Your task to perform on an android device: What's the news in the Dominican Republic? Image 0: 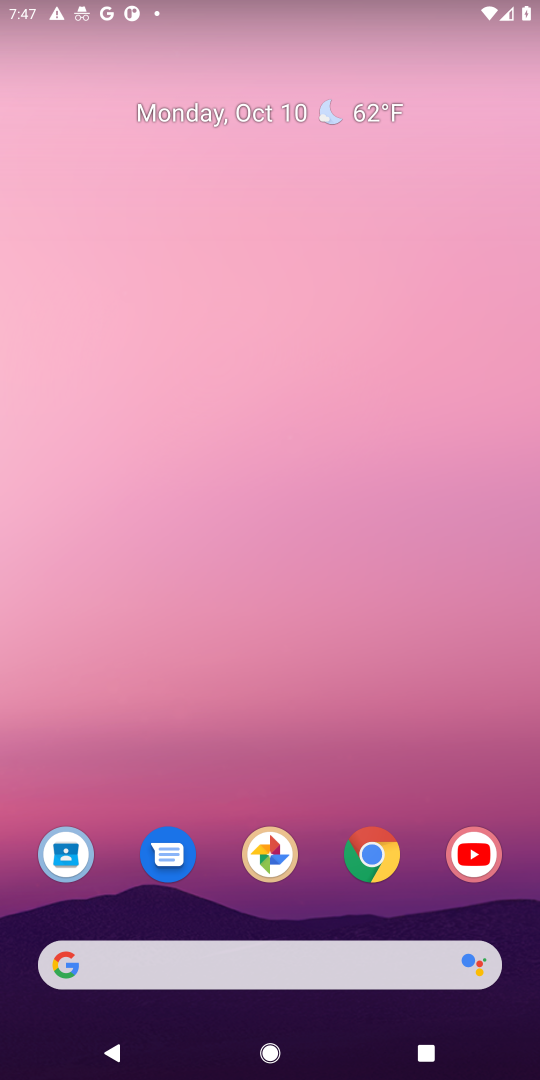
Step 0: click (370, 857)
Your task to perform on an android device: What's the news in the Dominican Republic? Image 1: 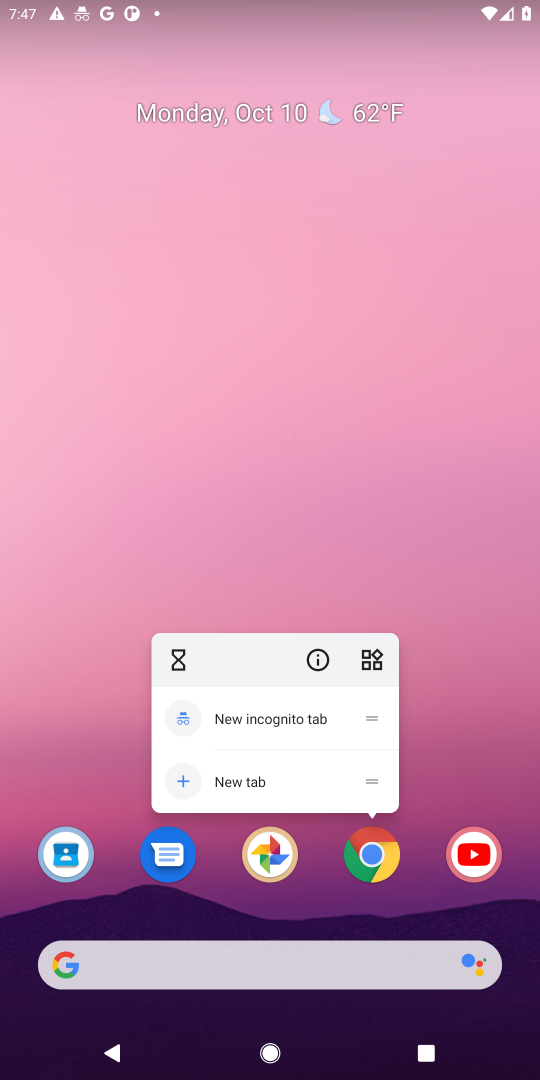
Step 1: click (370, 857)
Your task to perform on an android device: What's the news in the Dominican Republic? Image 2: 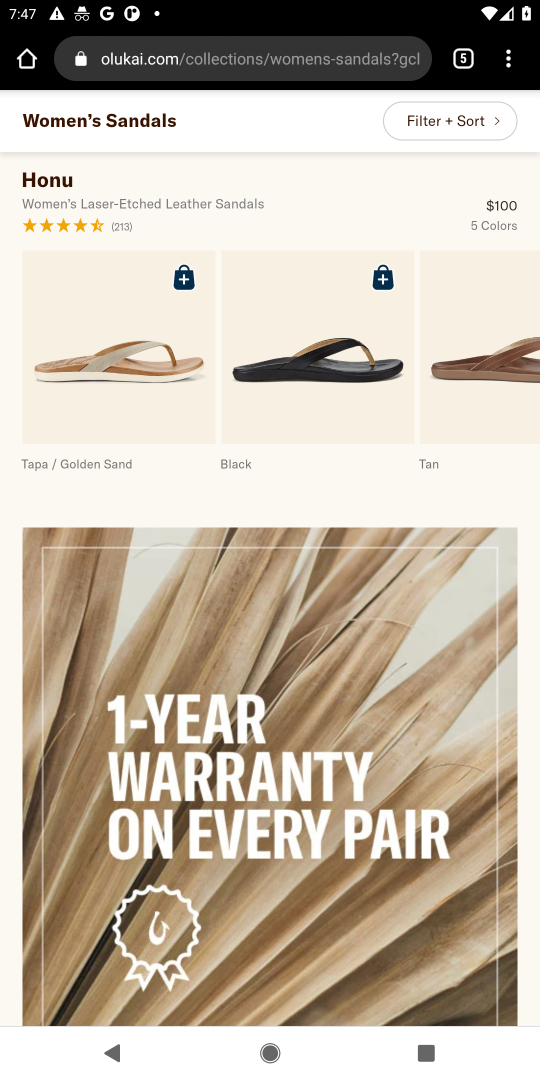
Step 2: click (283, 50)
Your task to perform on an android device: What's the news in the Dominican Republic? Image 3: 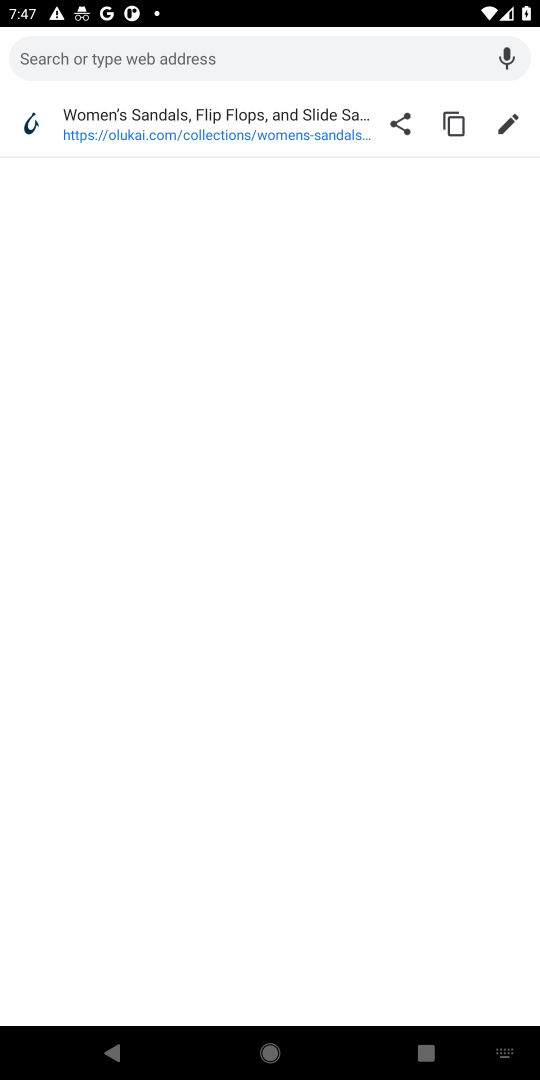
Step 3: type "news in the Dominican Republic"
Your task to perform on an android device: What's the news in the Dominican Republic? Image 4: 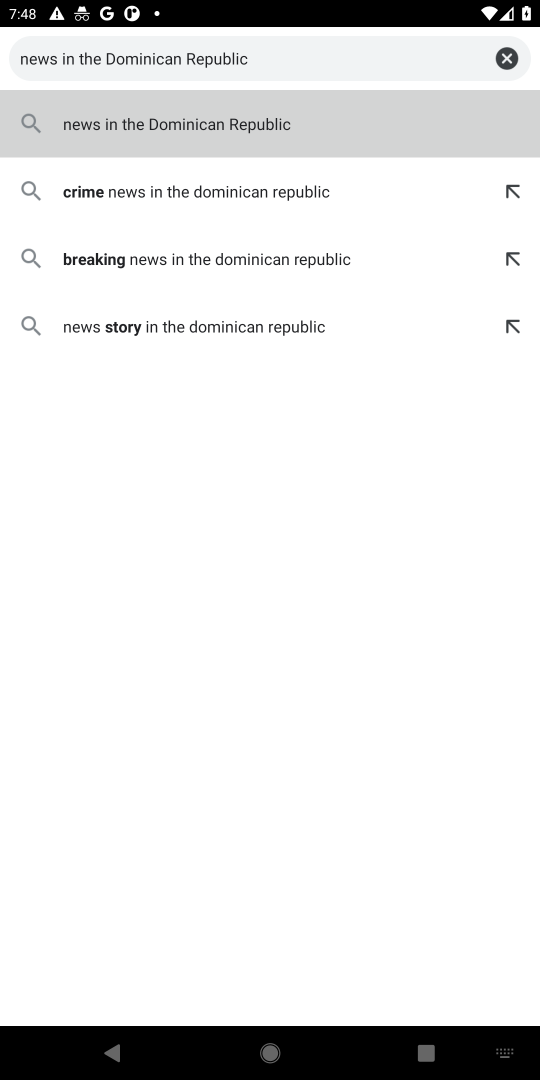
Step 4: click (136, 129)
Your task to perform on an android device: What's the news in the Dominican Republic? Image 5: 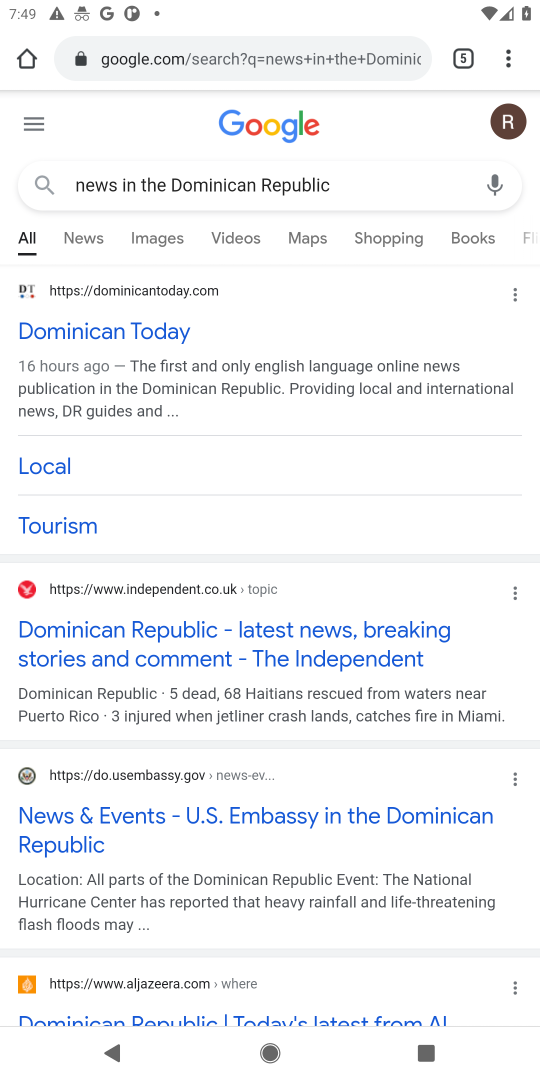
Step 5: click (82, 237)
Your task to perform on an android device: What's the news in the Dominican Republic? Image 6: 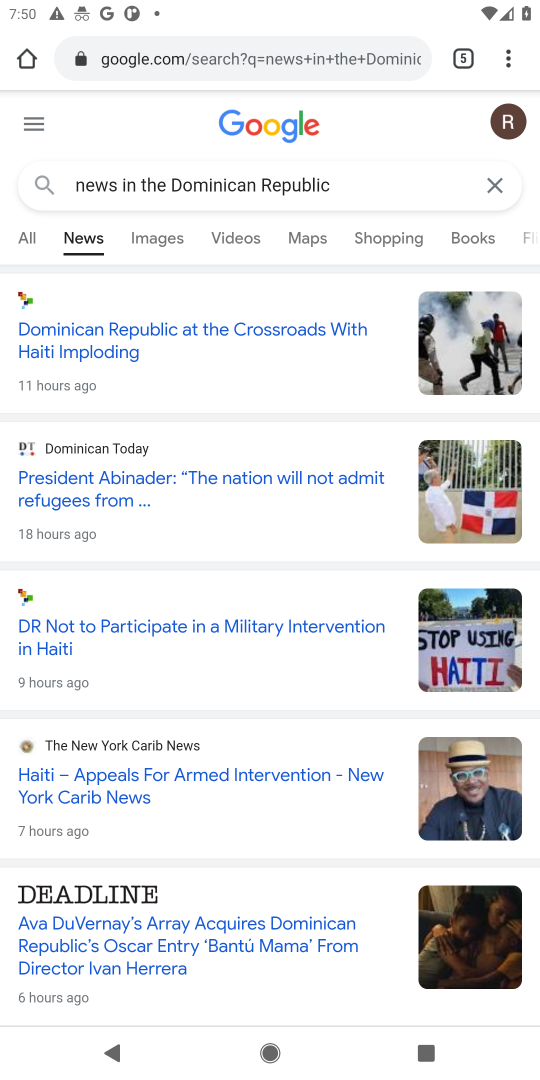
Step 6: task complete